Your task to perform on an android device: open app "YouTube Kids" Image 0: 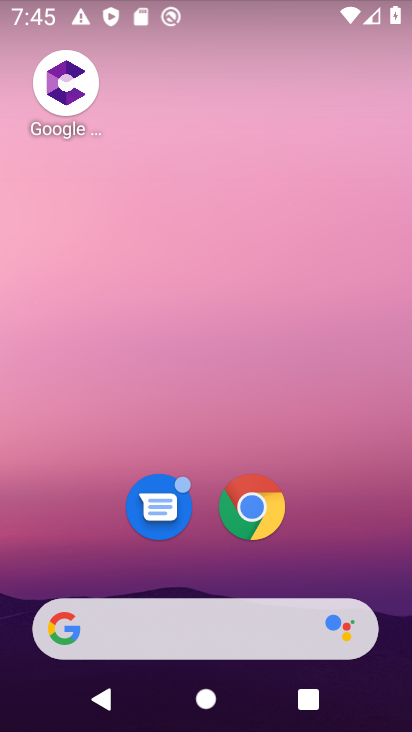
Step 0: drag from (395, 570) to (295, 86)
Your task to perform on an android device: open app "YouTube Kids" Image 1: 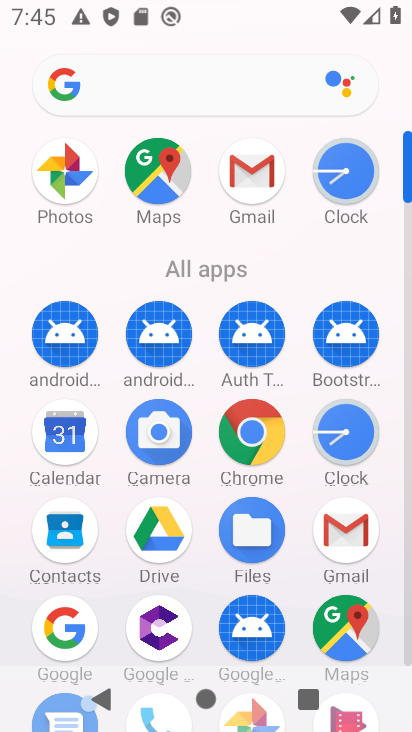
Step 1: click (408, 656)
Your task to perform on an android device: open app "YouTube Kids" Image 2: 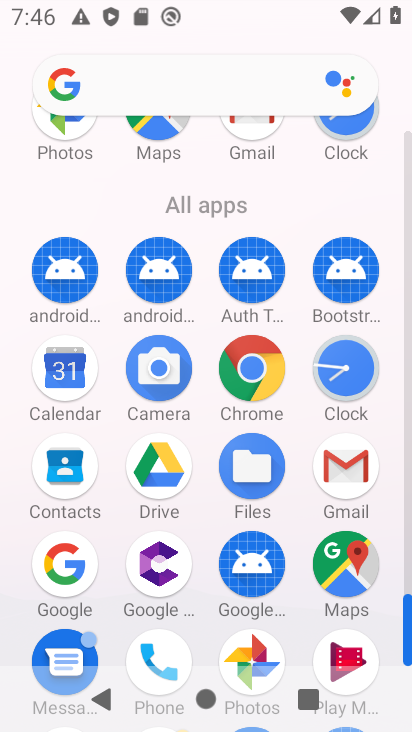
Step 2: drag from (378, 523) to (343, 152)
Your task to perform on an android device: open app "YouTube Kids" Image 3: 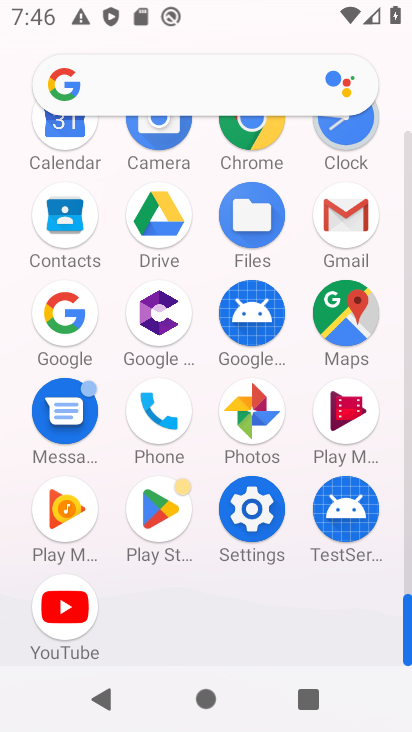
Step 3: click (153, 499)
Your task to perform on an android device: open app "YouTube Kids" Image 4: 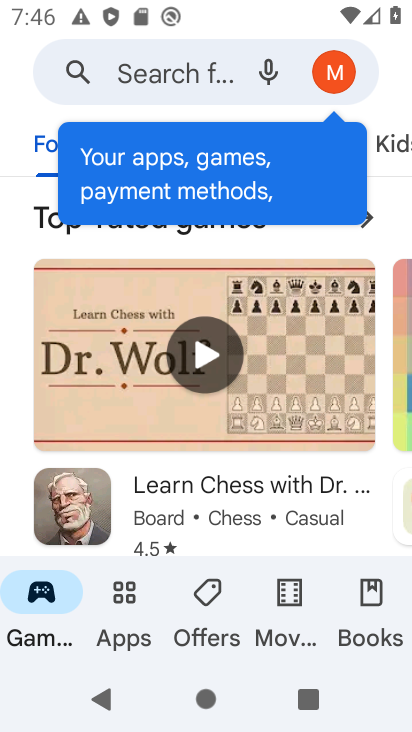
Step 4: click (175, 97)
Your task to perform on an android device: open app "YouTube Kids" Image 5: 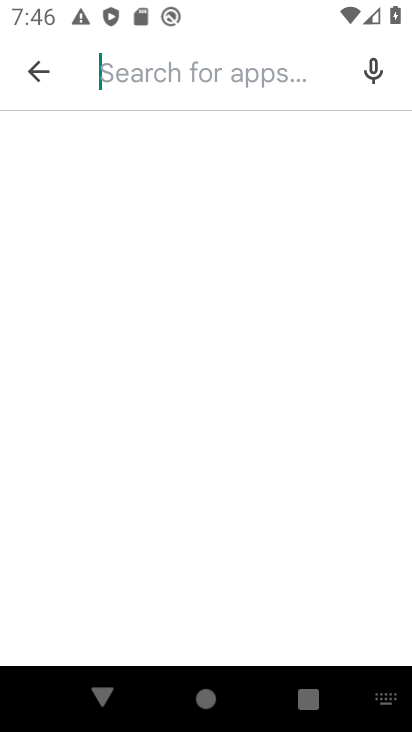
Step 5: type "YouTube Kids"
Your task to perform on an android device: open app "YouTube Kids" Image 6: 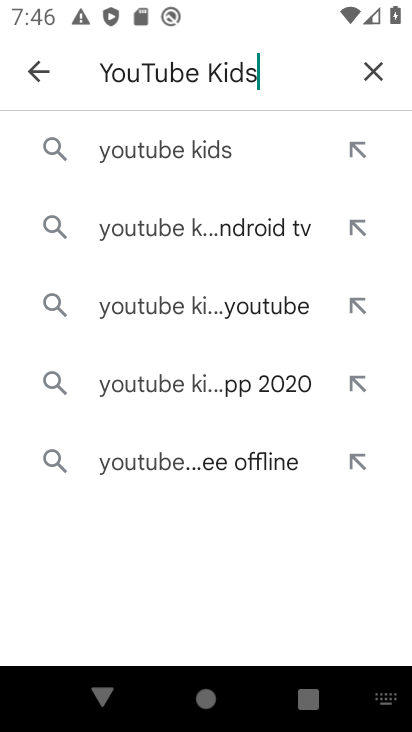
Step 6: click (174, 125)
Your task to perform on an android device: open app "YouTube Kids" Image 7: 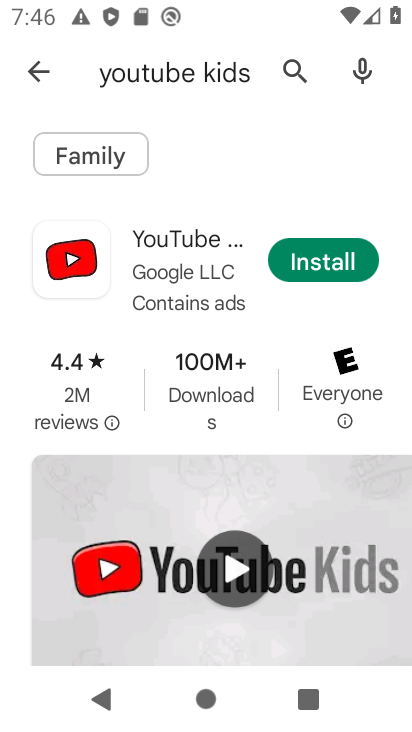
Step 7: task complete